Your task to perform on an android device: Open location settings Image 0: 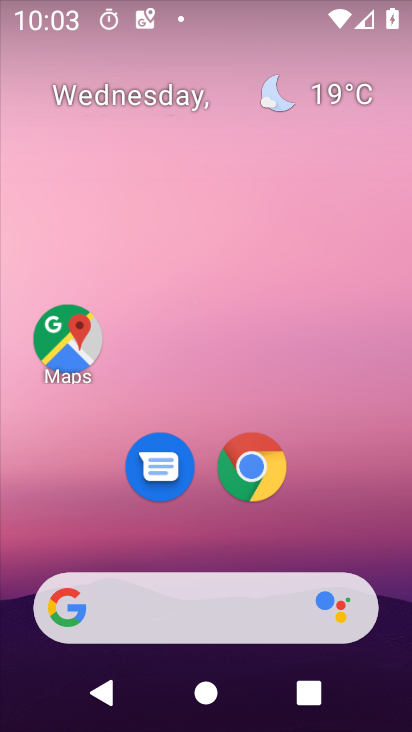
Step 0: drag from (331, 515) to (246, 73)
Your task to perform on an android device: Open location settings Image 1: 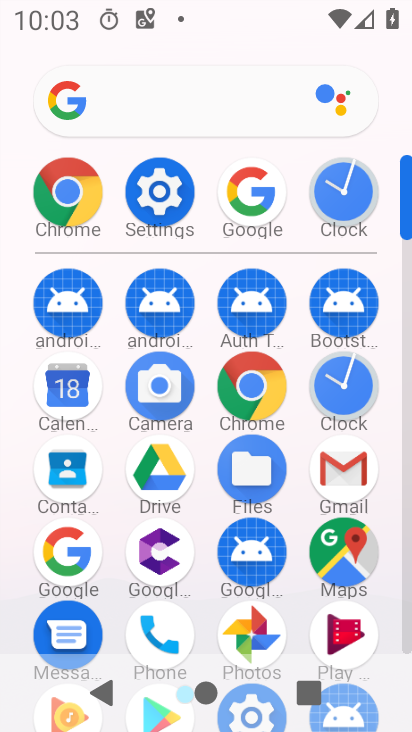
Step 1: click (157, 211)
Your task to perform on an android device: Open location settings Image 2: 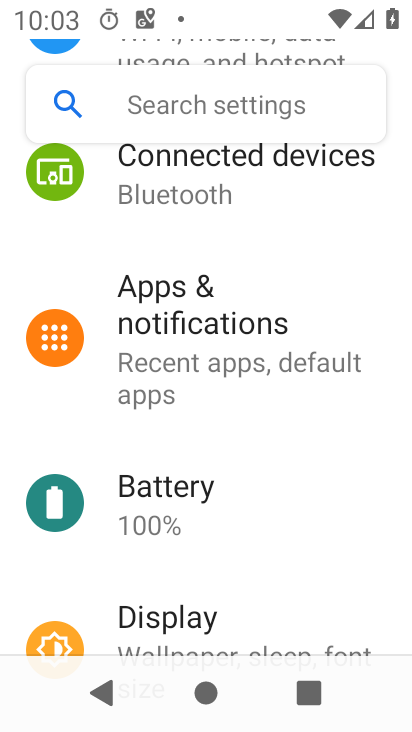
Step 2: drag from (278, 560) to (256, 116)
Your task to perform on an android device: Open location settings Image 3: 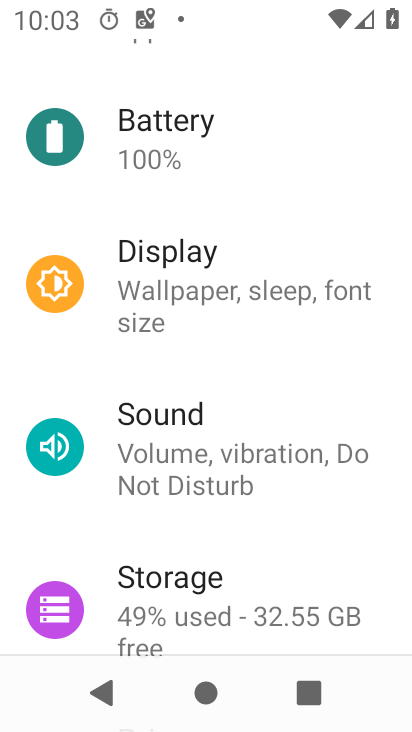
Step 3: drag from (200, 556) to (197, 127)
Your task to perform on an android device: Open location settings Image 4: 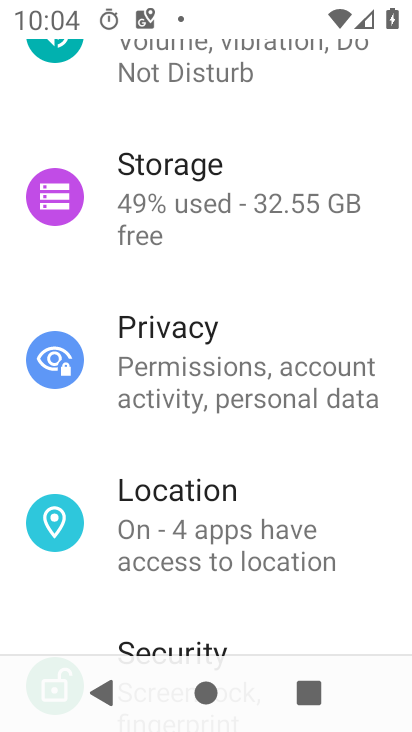
Step 4: click (219, 521)
Your task to perform on an android device: Open location settings Image 5: 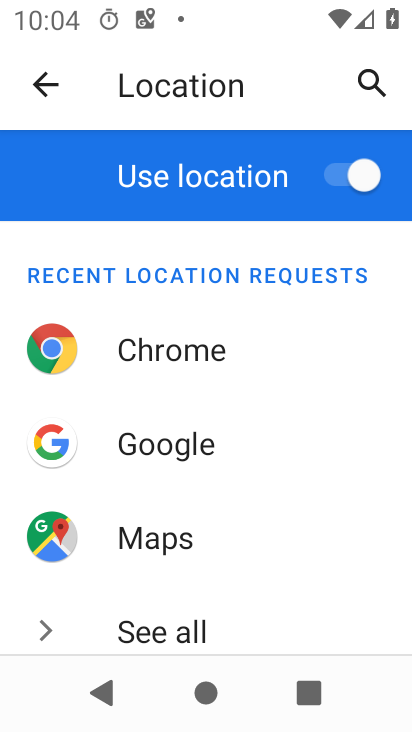
Step 5: task complete